Your task to perform on an android device: Search for hotels in Buenos aires Image 0: 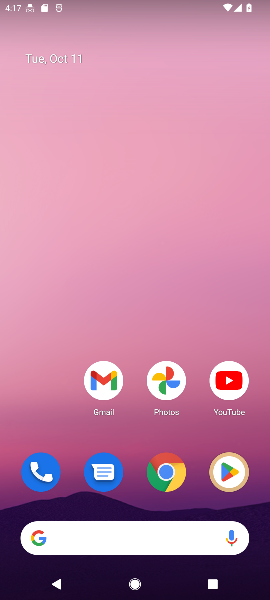
Step 0: click (182, 463)
Your task to perform on an android device: Search for hotels in Buenos aires Image 1: 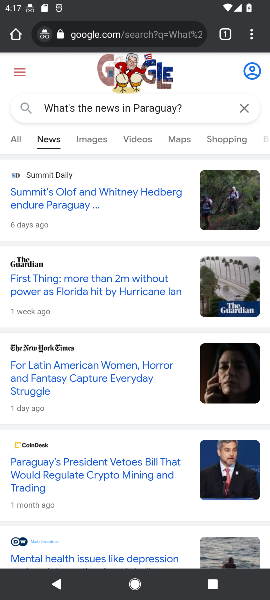
Step 1: click (135, 31)
Your task to perform on an android device: Search for hotels in Buenos aires Image 2: 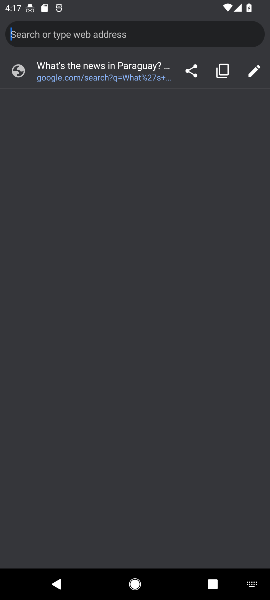
Step 2: type "hotels in Buenos aires"
Your task to perform on an android device: Search for hotels in Buenos aires Image 3: 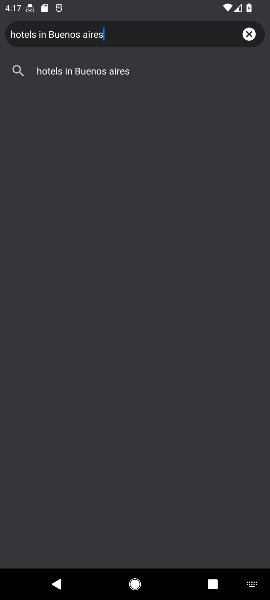
Step 3: click (78, 60)
Your task to perform on an android device: Search for hotels in Buenos aires Image 4: 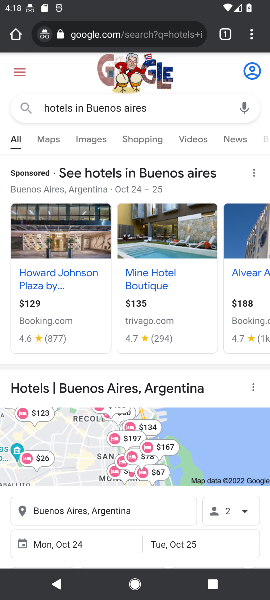
Step 4: task complete